Your task to perform on an android device: Do I have any events tomorrow? Image 0: 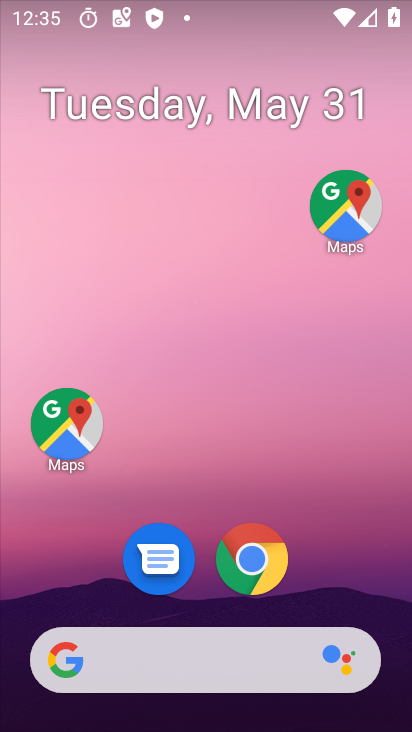
Step 0: drag from (371, 562) to (256, 123)
Your task to perform on an android device: Do I have any events tomorrow? Image 1: 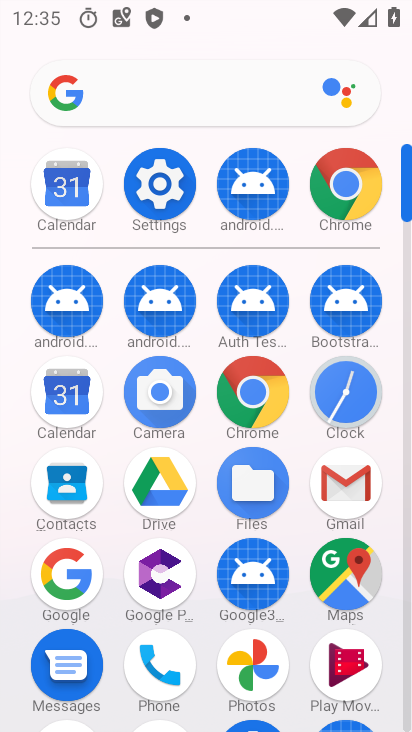
Step 1: click (68, 193)
Your task to perform on an android device: Do I have any events tomorrow? Image 2: 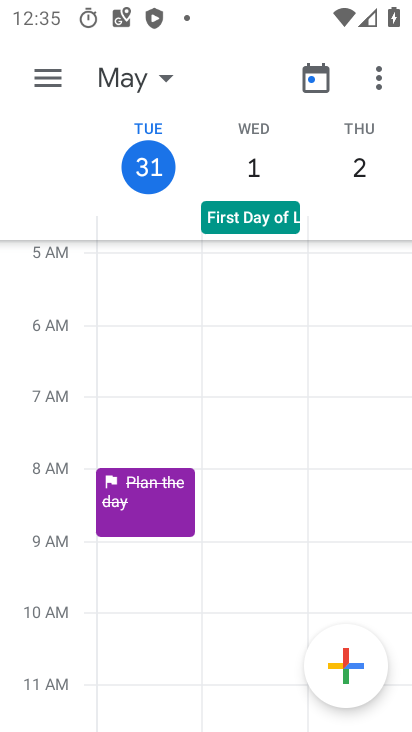
Step 2: click (258, 176)
Your task to perform on an android device: Do I have any events tomorrow? Image 3: 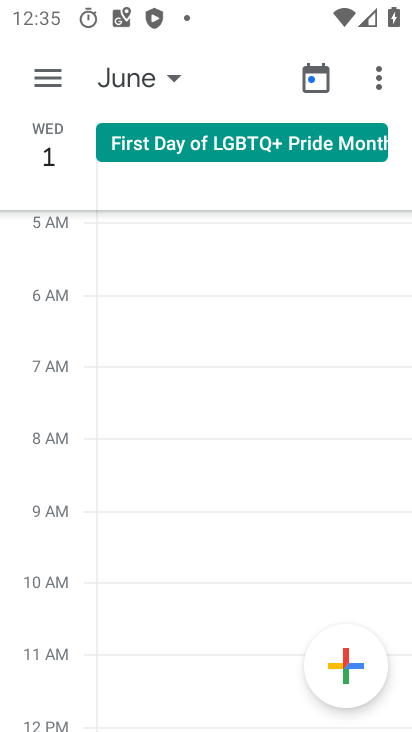
Step 3: task complete